Your task to perform on an android device: turn on bluetooth scan Image 0: 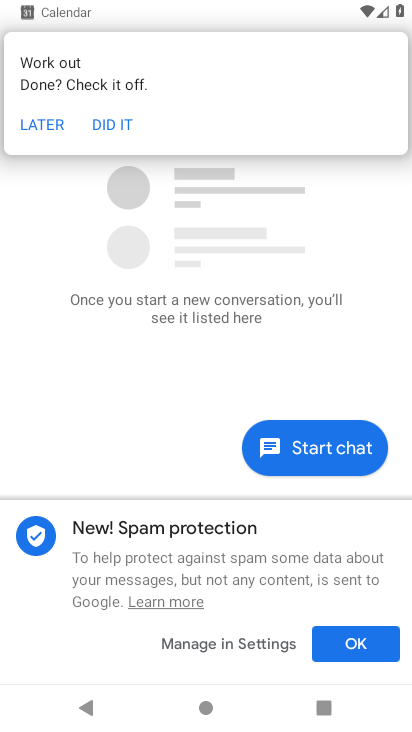
Step 0: press home button
Your task to perform on an android device: turn on bluetooth scan Image 1: 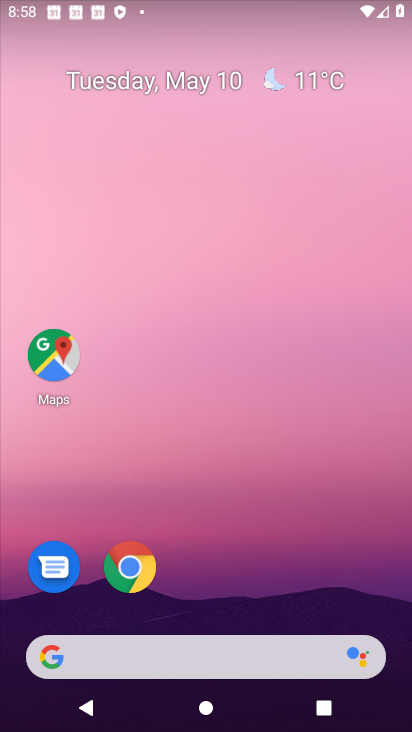
Step 1: drag from (177, 626) to (145, 270)
Your task to perform on an android device: turn on bluetooth scan Image 2: 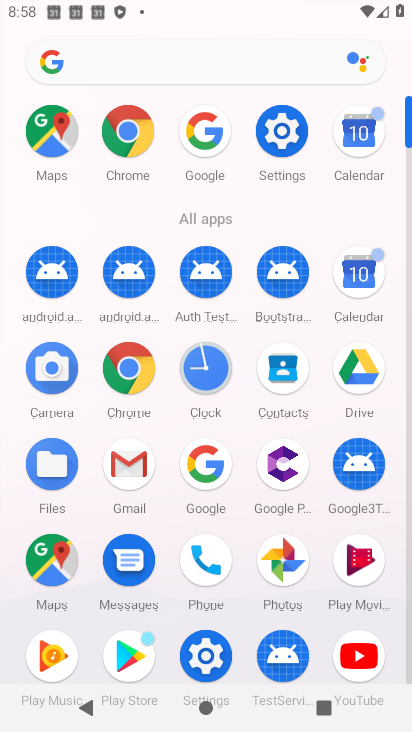
Step 2: click (281, 139)
Your task to perform on an android device: turn on bluetooth scan Image 3: 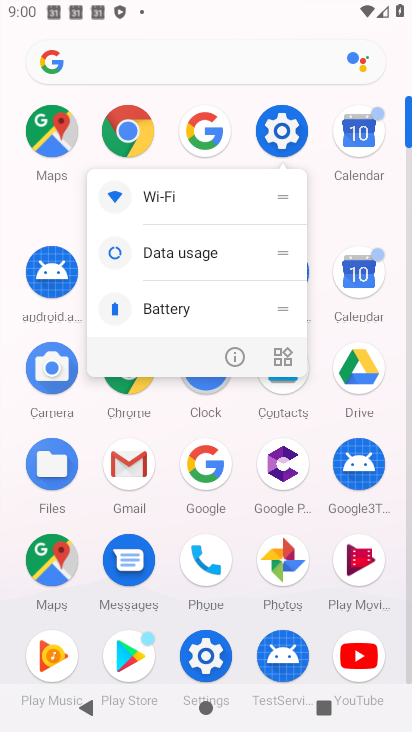
Step 3: click (203, 646)
Your task to perform on an android device: turn on bluetooth scan Image 4: 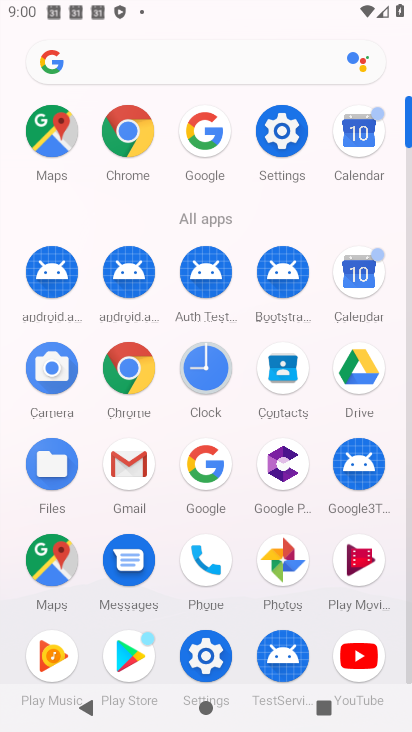
Step 4: click (209, 657)
Your task to perform on an android device: turn on bluetooth scan Image 5: 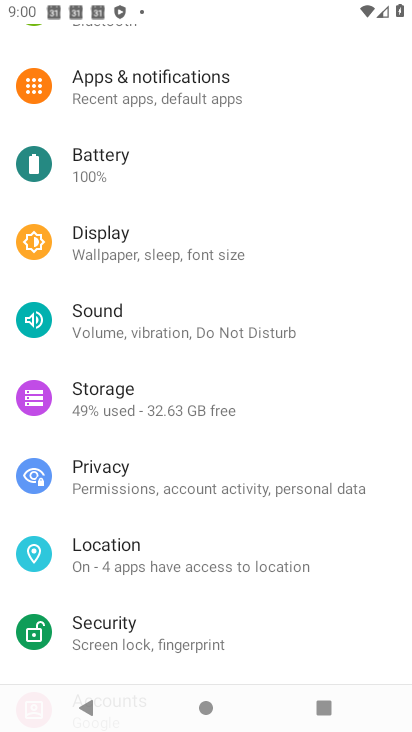
Step 5: click (116, 556)
Your task to perform on an android device: turn on bluetooth scan Image 6: 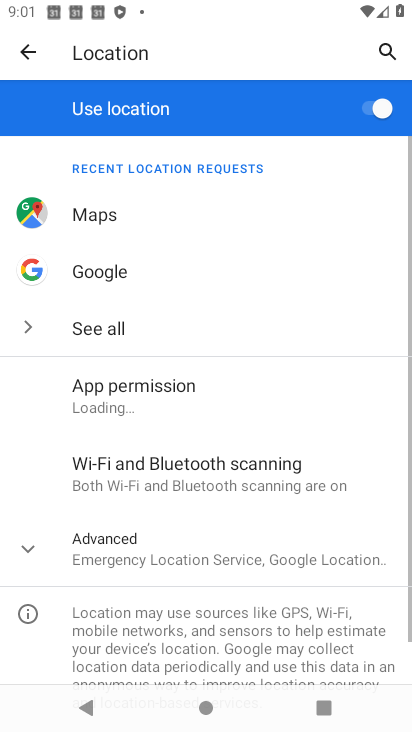
Step 6: click (122, 466)
Your task to perform on an android device: turn on bluetooth scan Image 7: 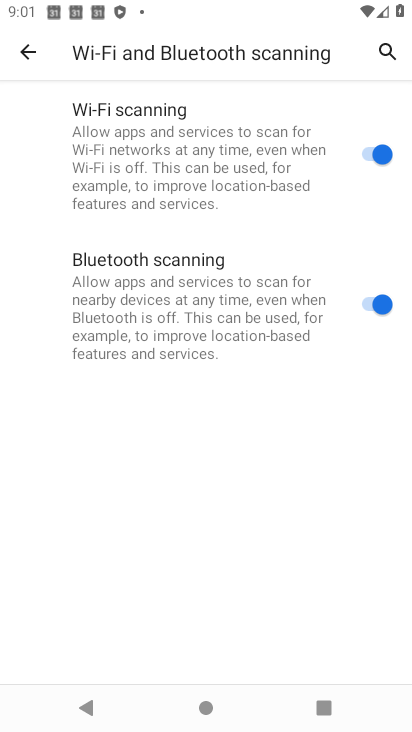
Step 7: task complete